Your task to perform on an android device: move a message to another label in the gmail app Image 0: 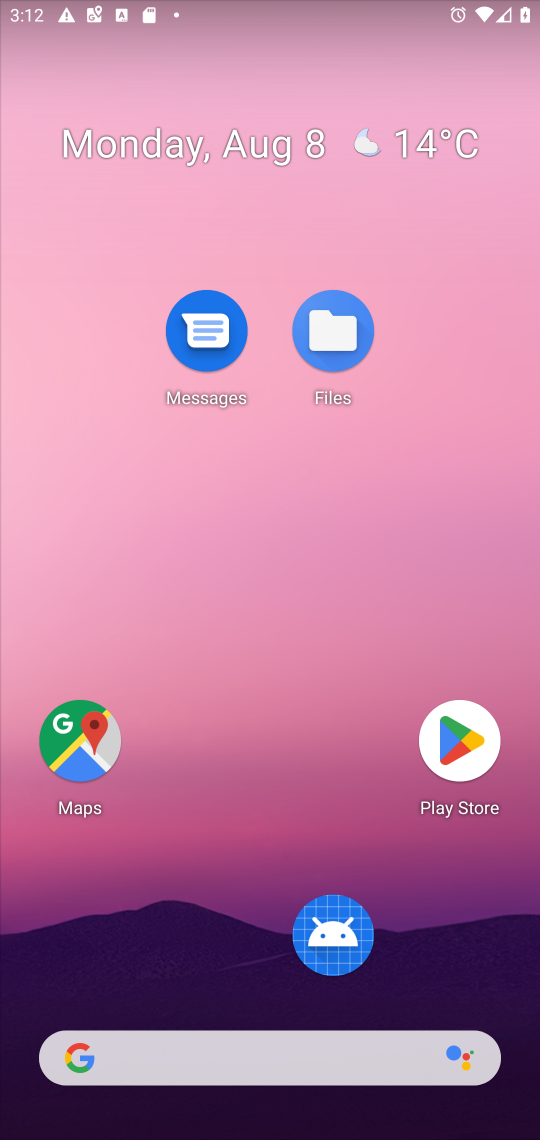
Step 0: drag from (210, 1056) to (312, 14)
Your task to perform on an android device: move a message to another label in the gmail app Image 1: 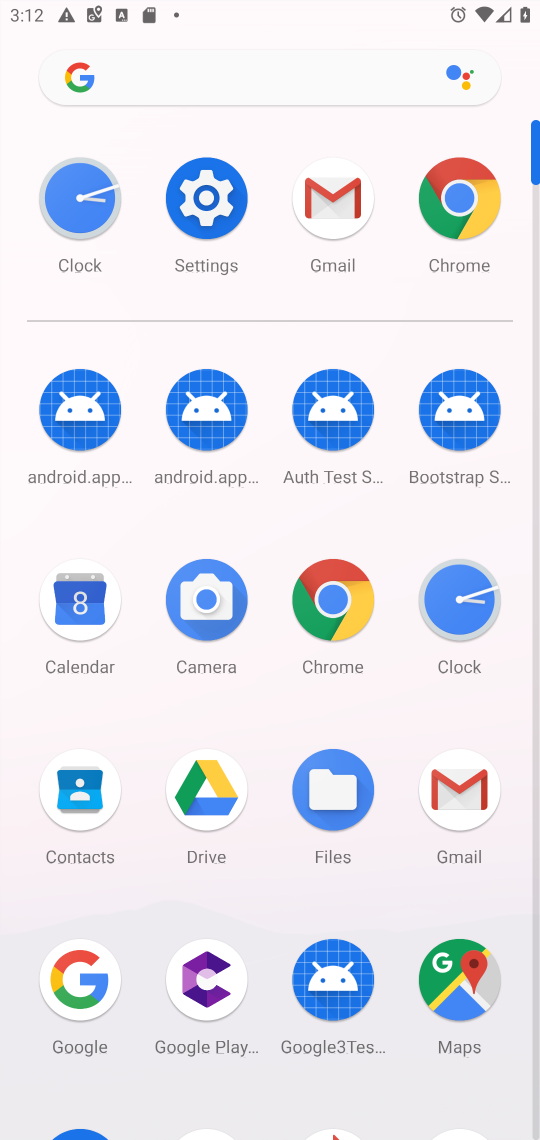
Step 1: click (462, 779)
Your task to perform on an android device: move a message to another label in the gmail app Image 2: 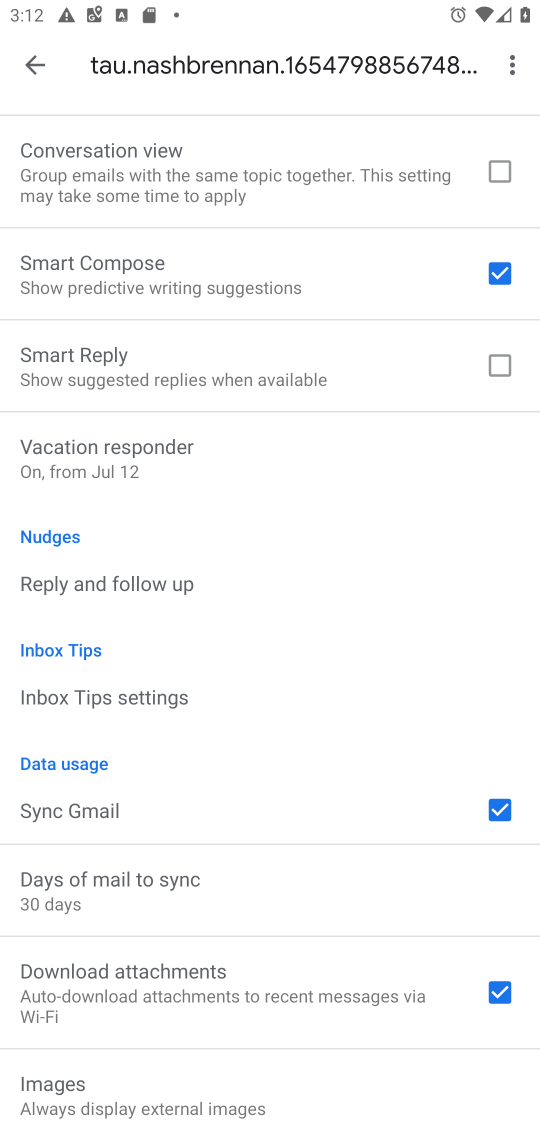
Step 2: press back button
Your task to perform on an android device: move a message to another label in the gmail app Image 3: 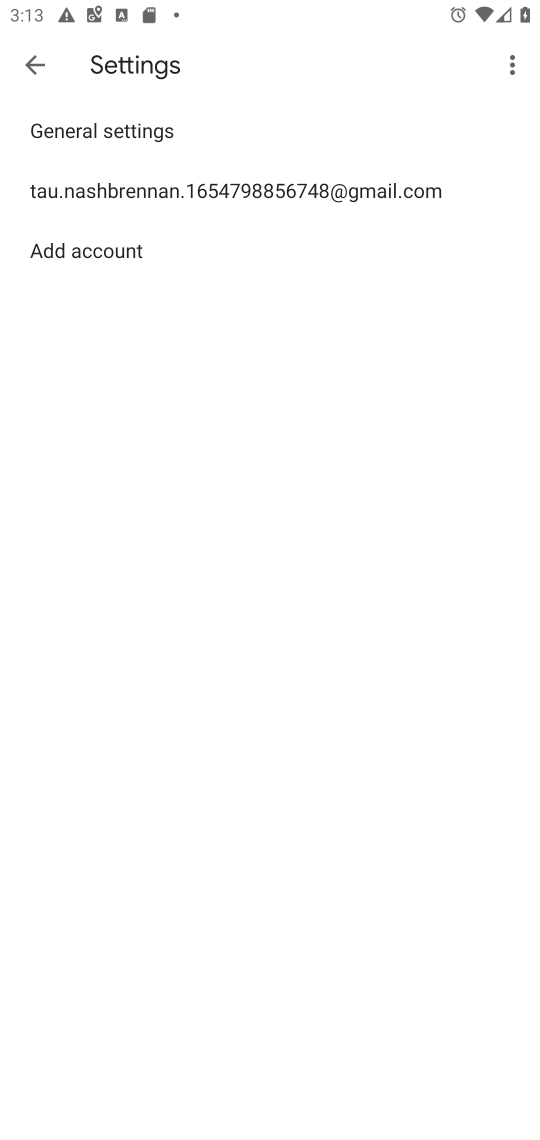
Step 3: press back button
Your task to perform on an android device: move a message to another label in the gmail app Image 4: 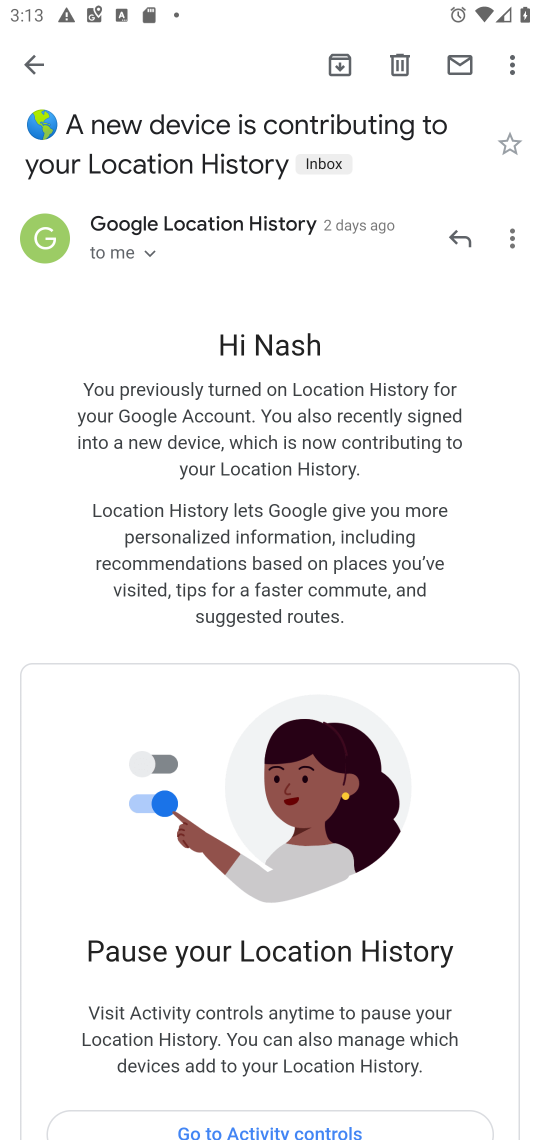
Step 4: press back button
Your task to perform on an android device: move a message to another label in the gmail app Image 5: 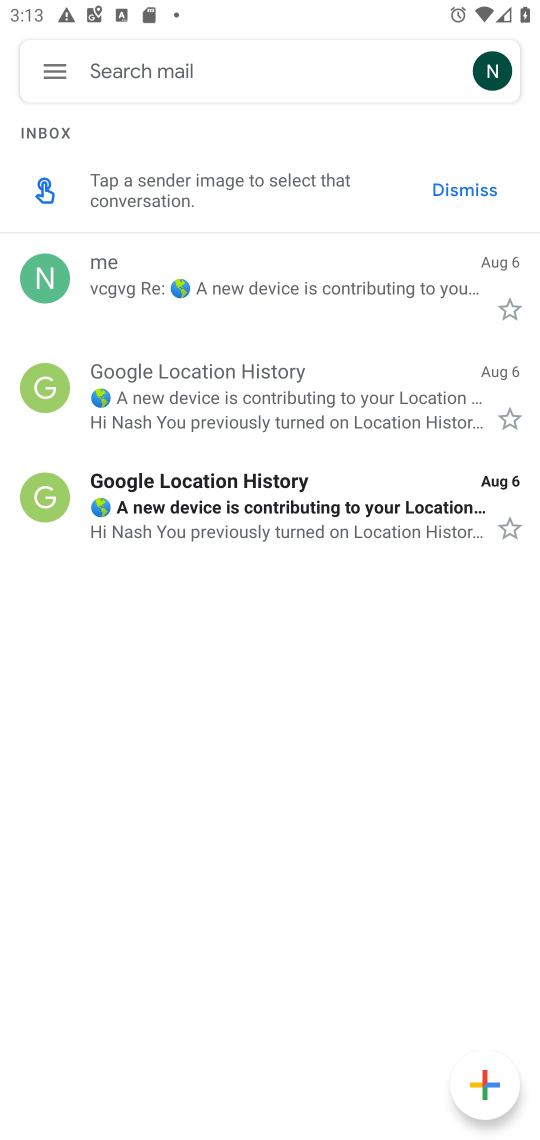
Step 5: click (274, 402)
Your task to perform on an android device: move a message to another label in the gmail app Image 6: 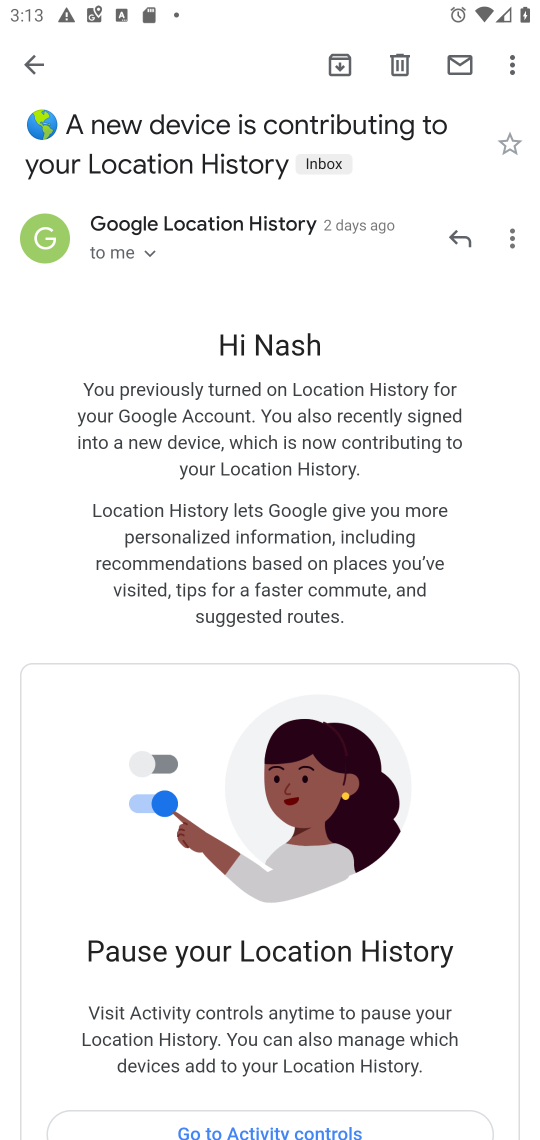
Step 6: click (503, 56)
Your task to perform on an android device: move a message to another label in the gmail app Image 7: 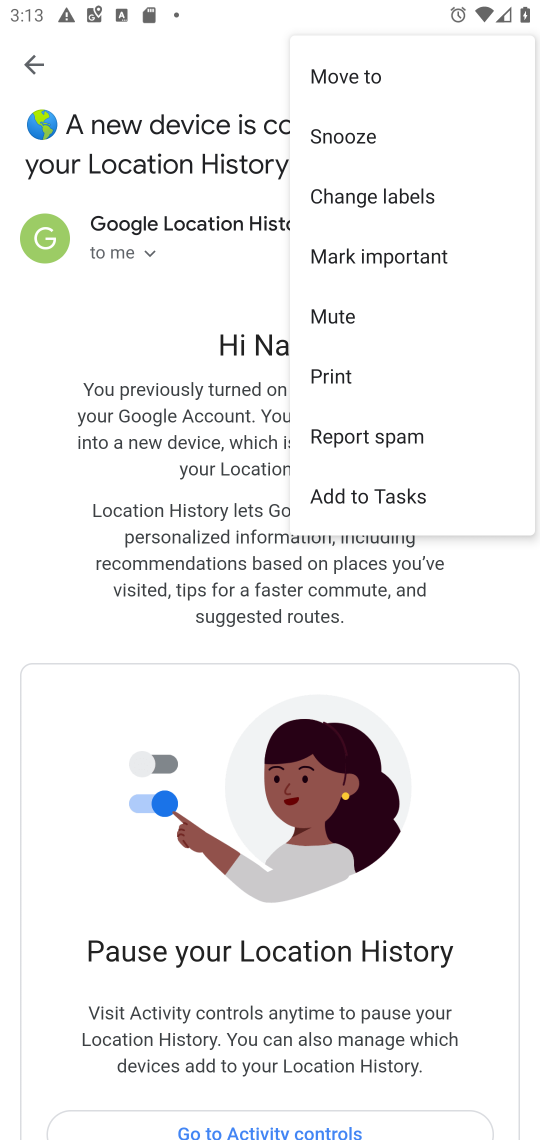
Step 7: click (392, 199)
Your task to perform on an android device: move a message to another label in the gmail app Image 8: 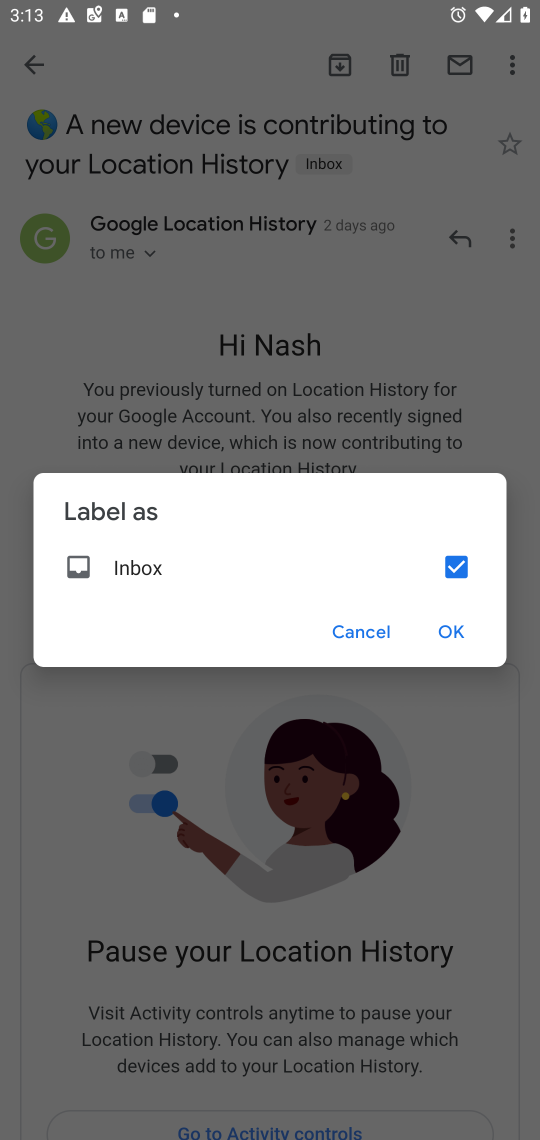
Step 8: click (455, 624)
Your task to perform on an android device: move a message to another label in the gmail app Image 9: 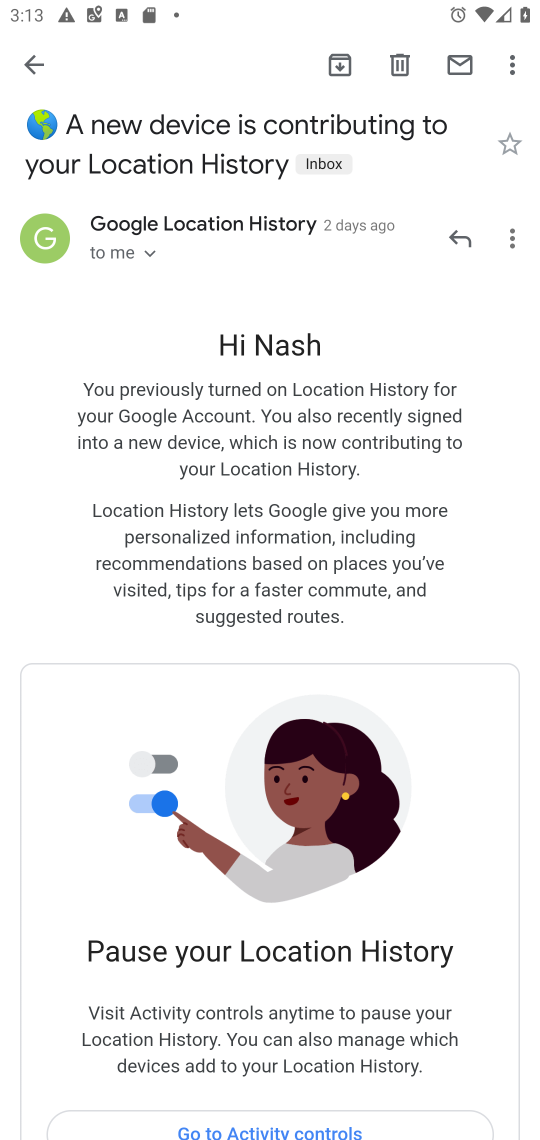
Step 9: task complete